Your task to perform on an android device: Add "dell xps" to the cart on bestbuy, then select checkout. Image 0: 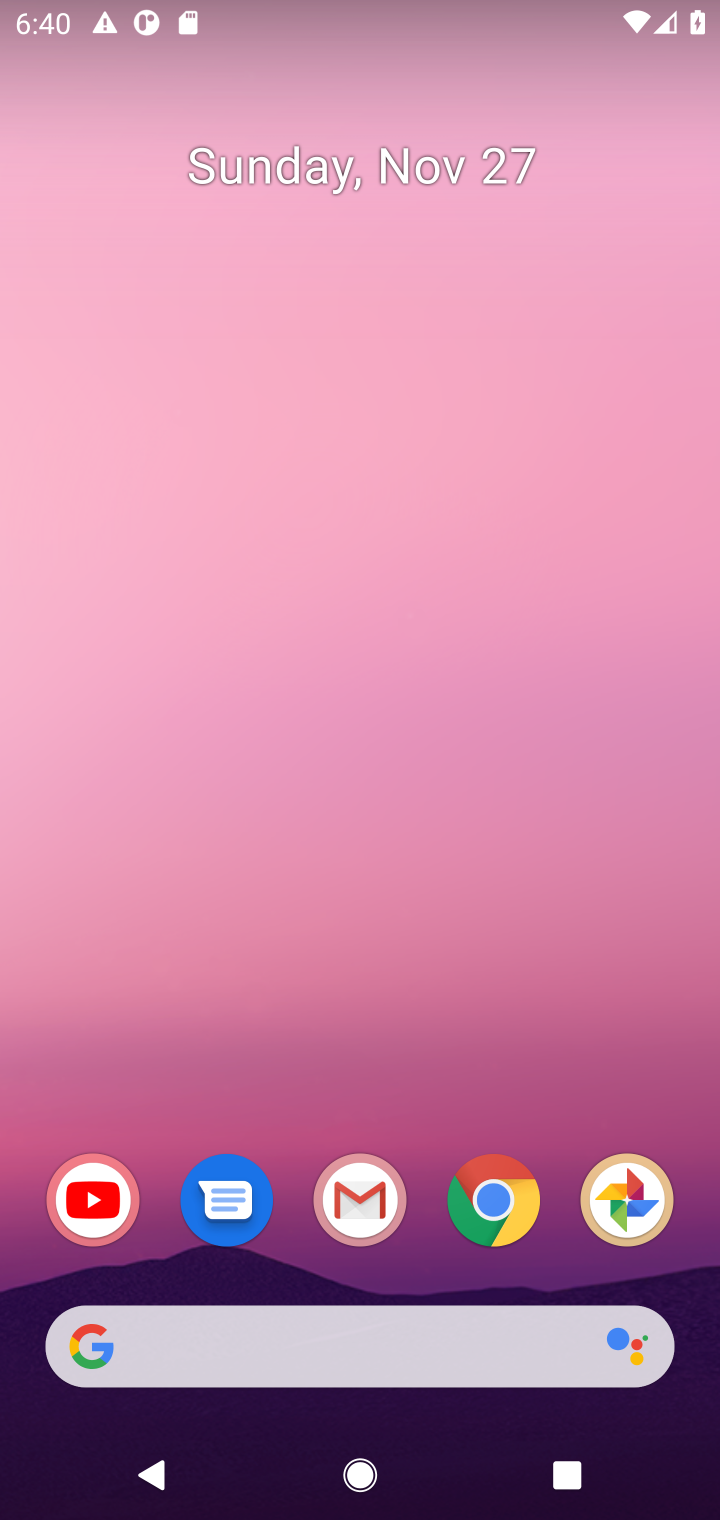
Step 0: click (509, 1206)
Your task to perform on an android device: Add "dell xps" to the cart on bestbuy, then select checkout. Image 1: 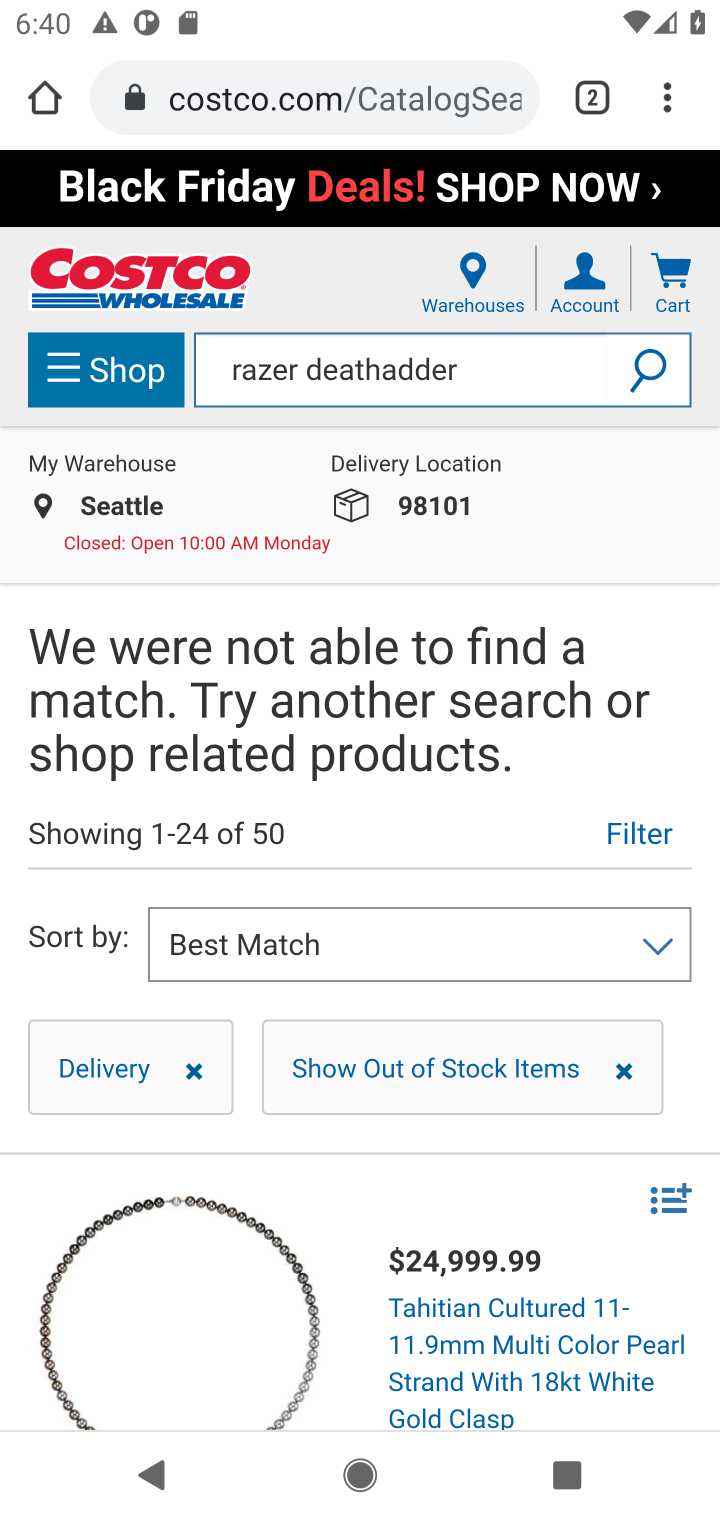
Step 1: click (286, 112)
Your task to perform on an android device: Add "dell xps" to the cart on bestbuy, then select checkout. Image 2: 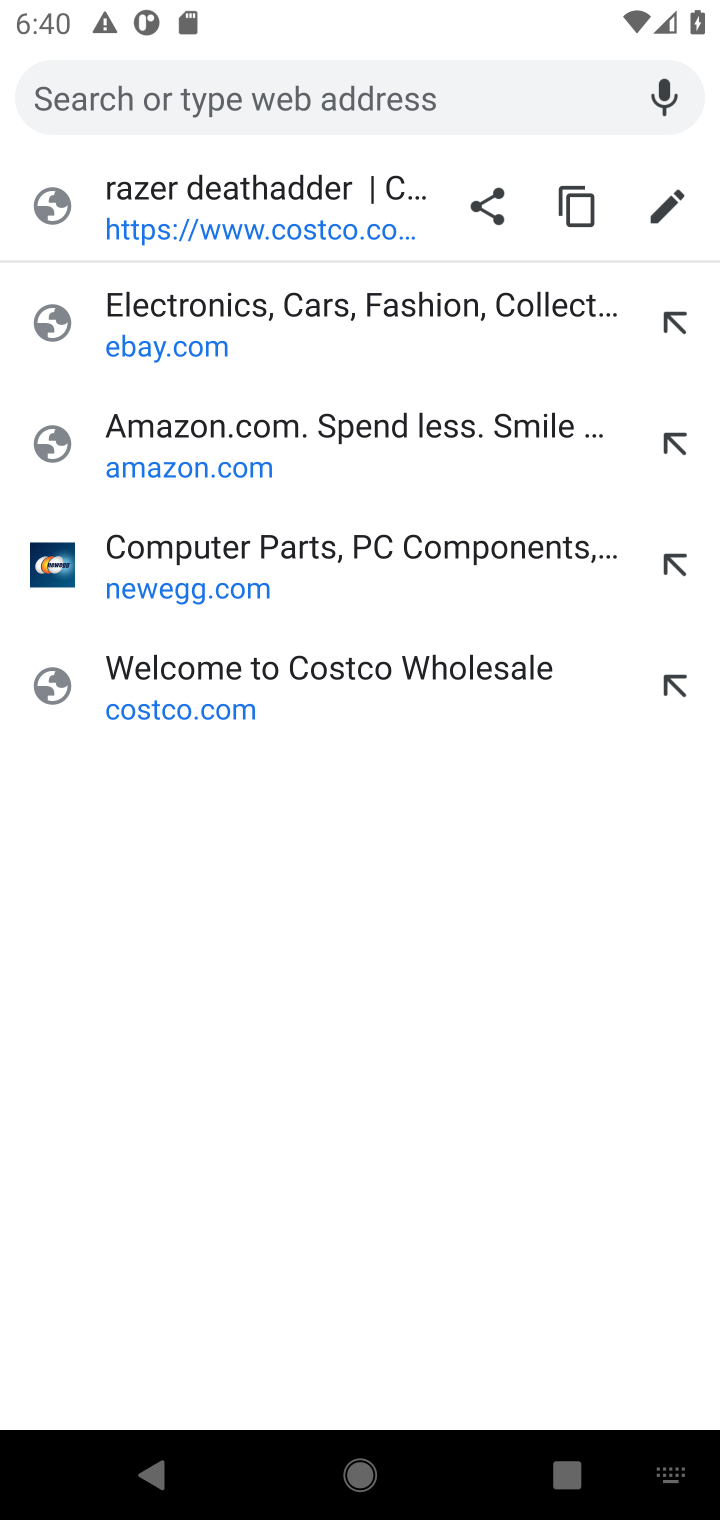
Step 2: type "bestbuy.com"
Your task to perform on an android device: Add "dell xps" to the cart on bestbuy, then select checkout. Image 3: 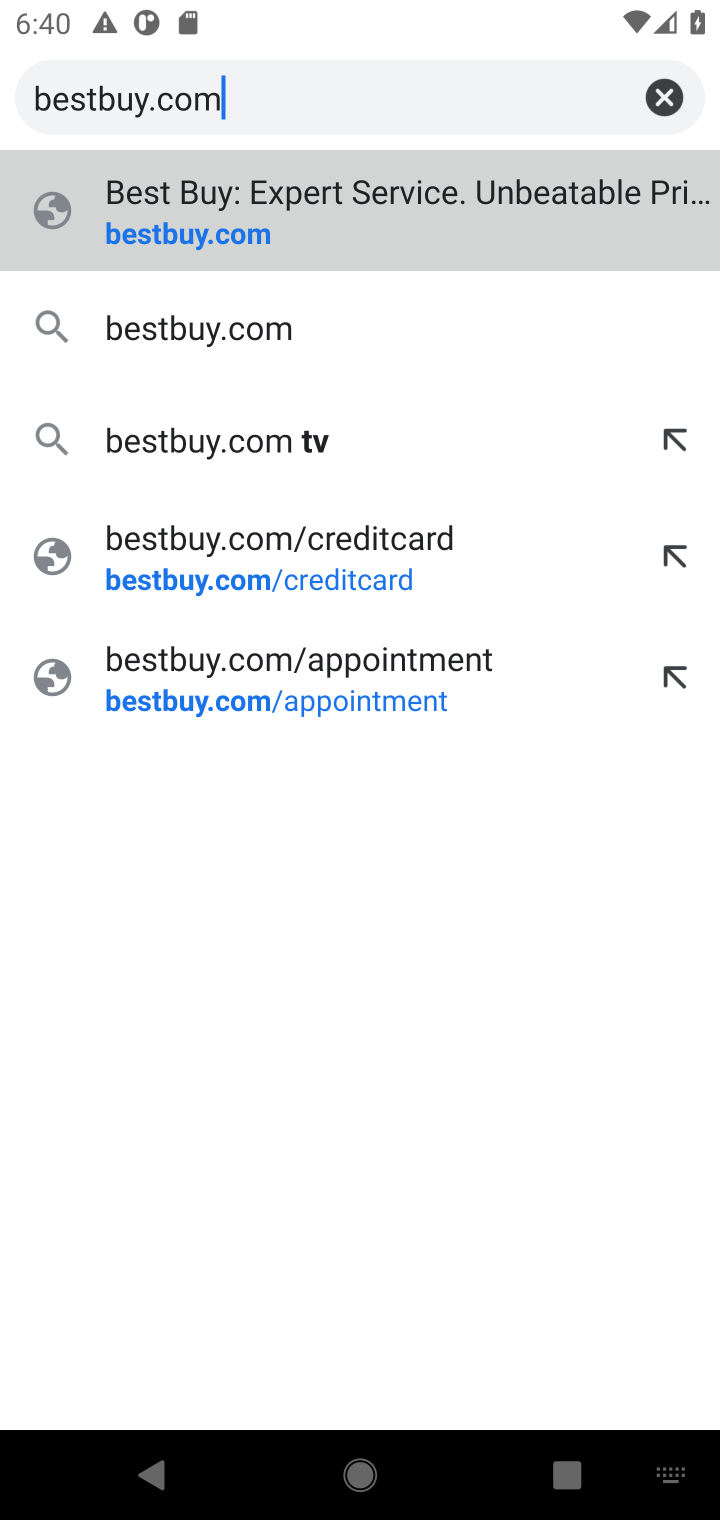
Step 3: click (119, 249)
Your task to perform on an android device: Add "dell xps" to the cart on bestbuy, then select checkout. Image 4: 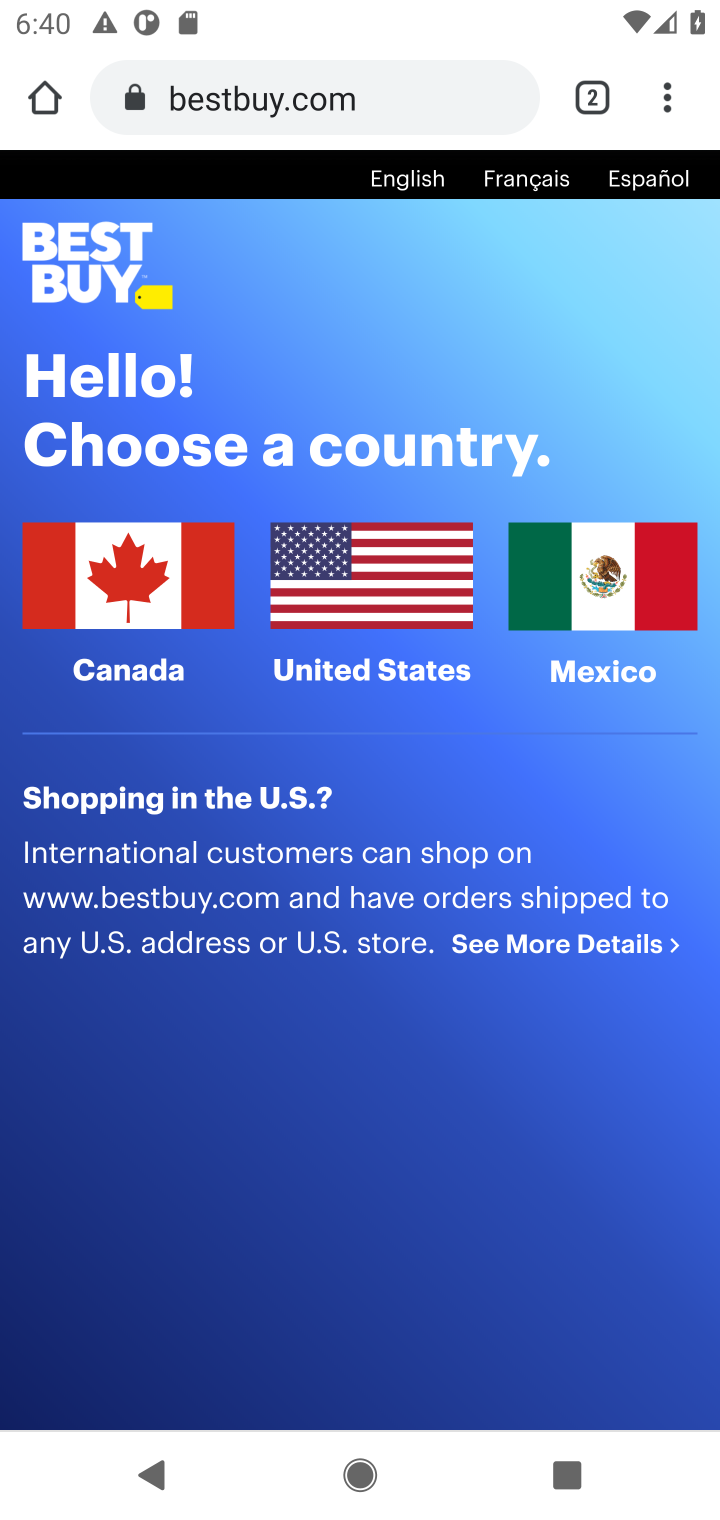
Step 4: click (357, 604)
Your task to perform on an android device: Add "dell xps" to the cart on bestbuy, then select checkout. Image 5: 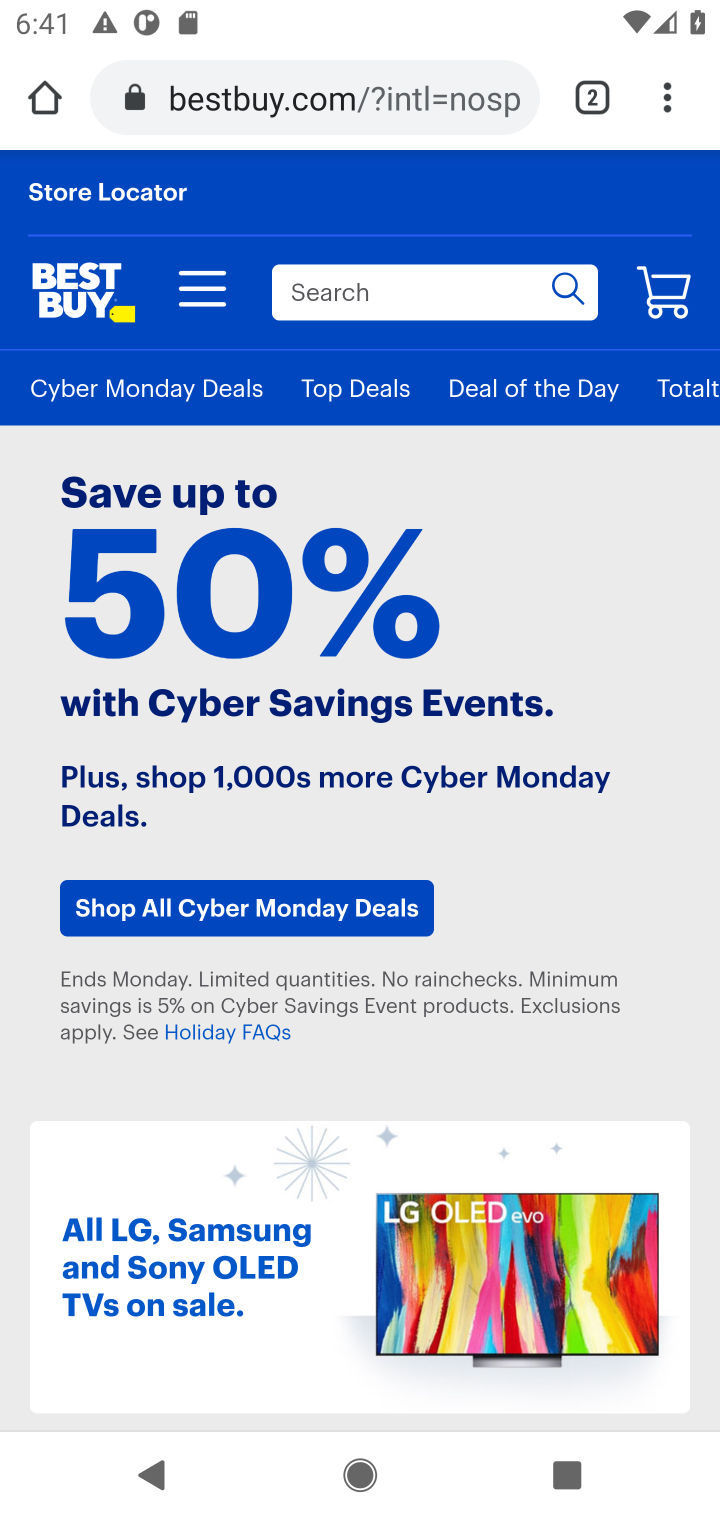
Step 5: click (375, 294)
Your task to perform on an android device: Add "dell xps" to the cart on bestbuy, then select checkout. Image 6: 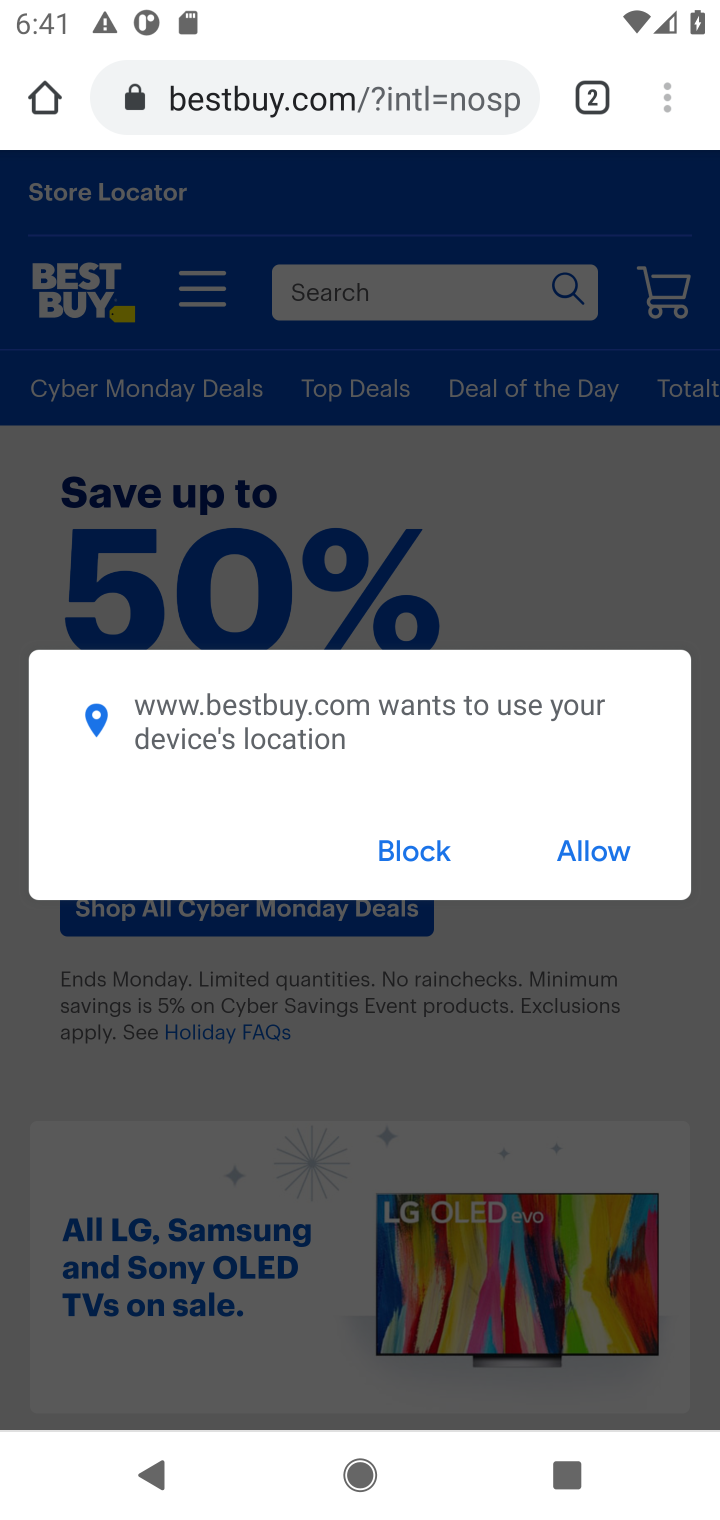
Step 6: click (401, 856)
Your task to perform on an android device: Add "dell xps" to the cart on bestbuy, then select checkout. Image 7: 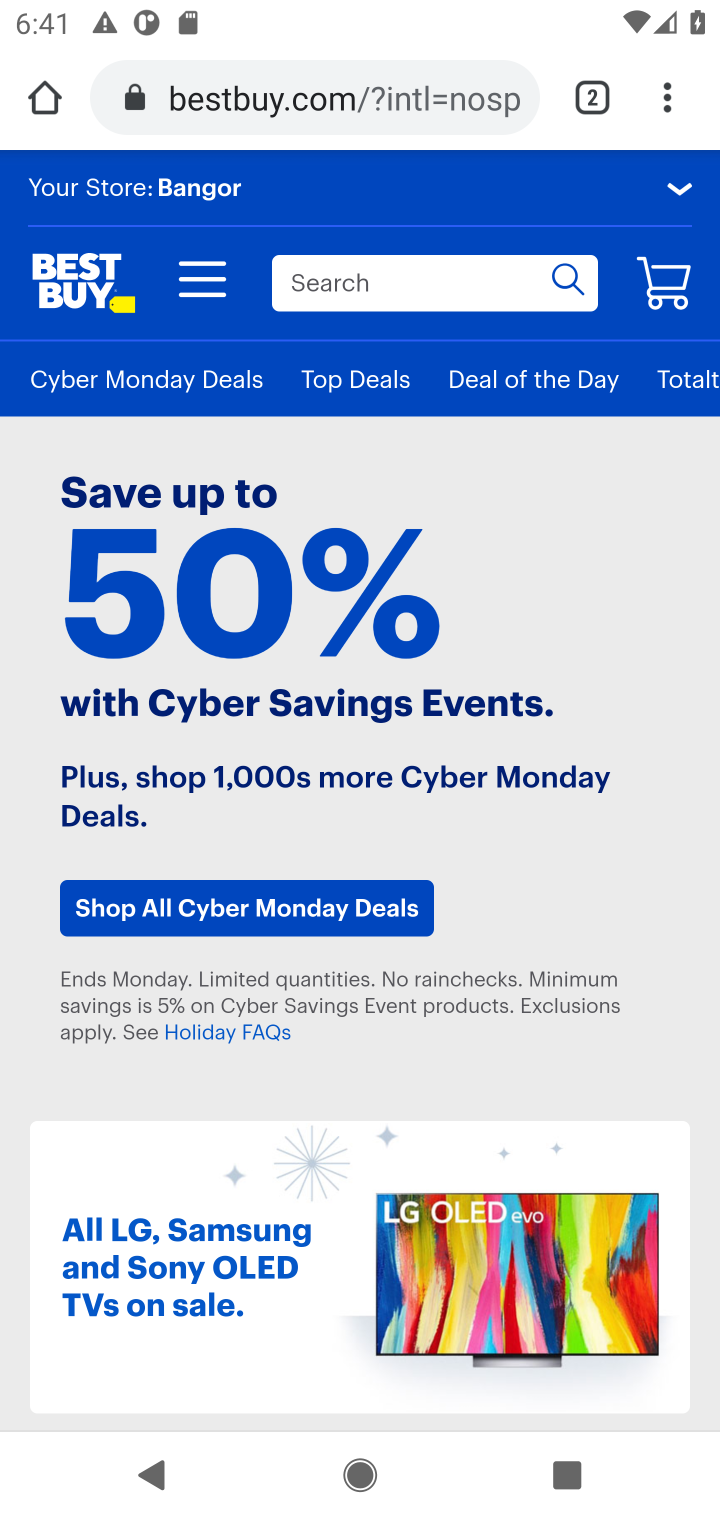
Step 7: click (328, 296)
Your task to perform on an android device: Add "dell xps" to the cart on bestbuy, then select checkout. Image 8: 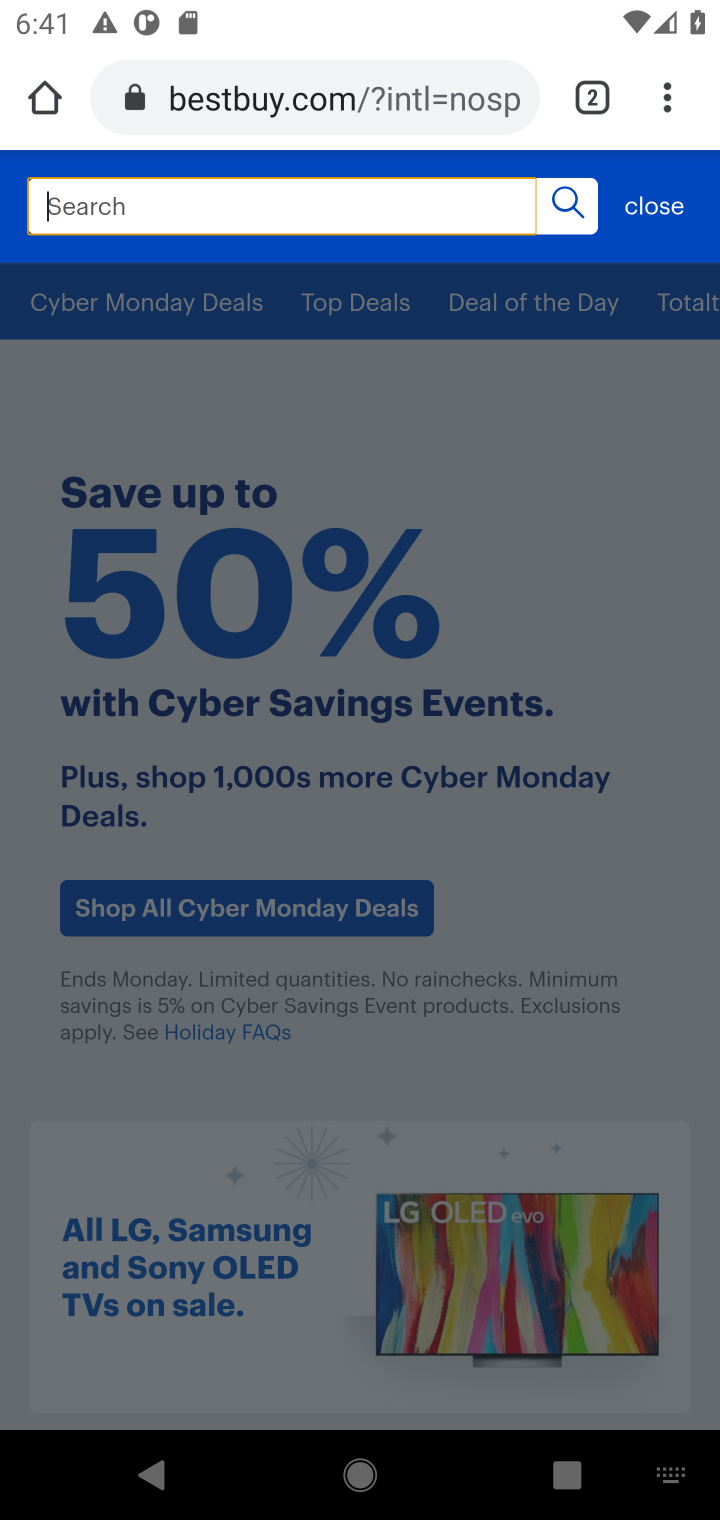
Step 8: type "dell xps"
Your task to perform on an android device: Add "dell xps" to the cart on bestbuy, then select checkout. Image 9: 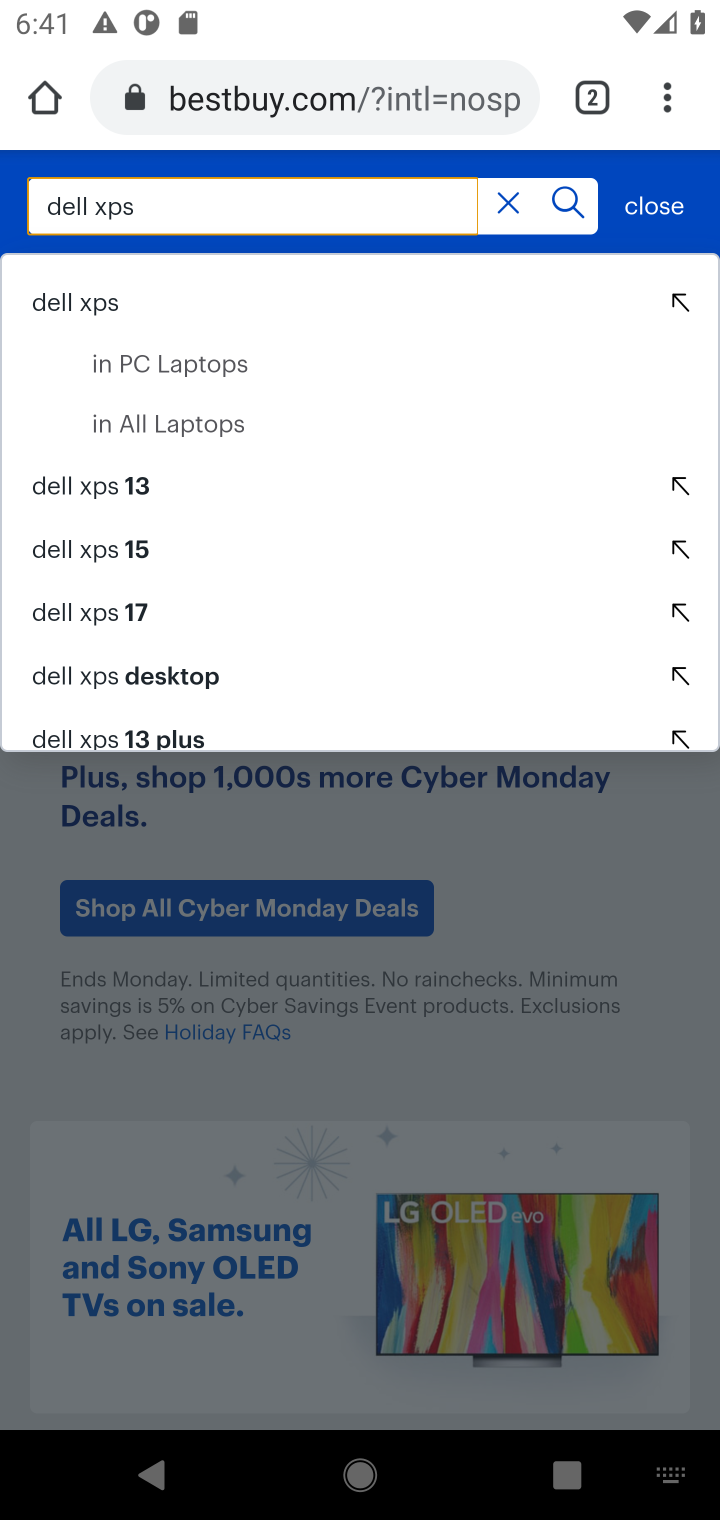
Step 9: click (59, 302)
Your task to perform on an android device: Add "dell xps" to the cart on bestbuy, then select checkout. Image 10: 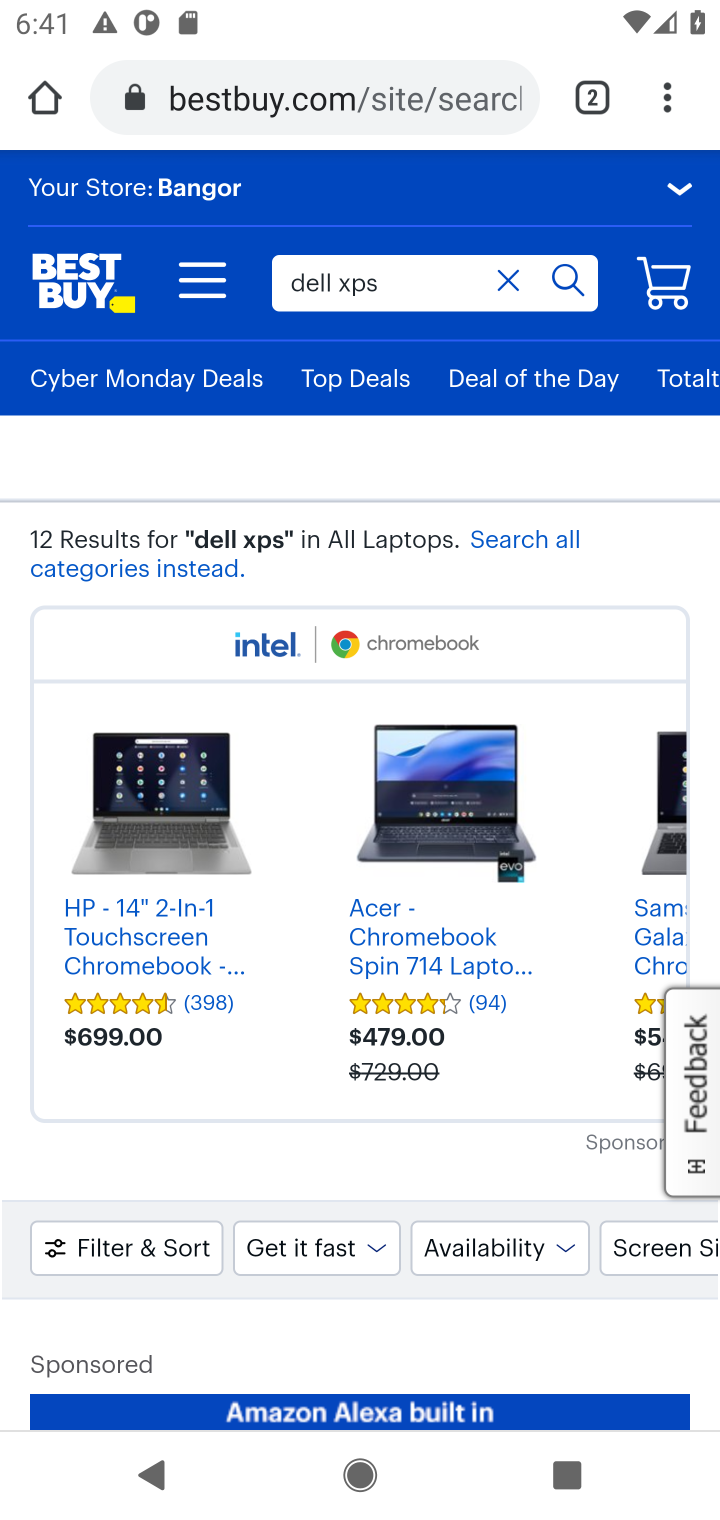
Step 10: drag from (305, 1077) to (257, 757)
Your task to perform on an android device: Add "dell xps" to the cart on bestbuy, then select checkout. Image 11: 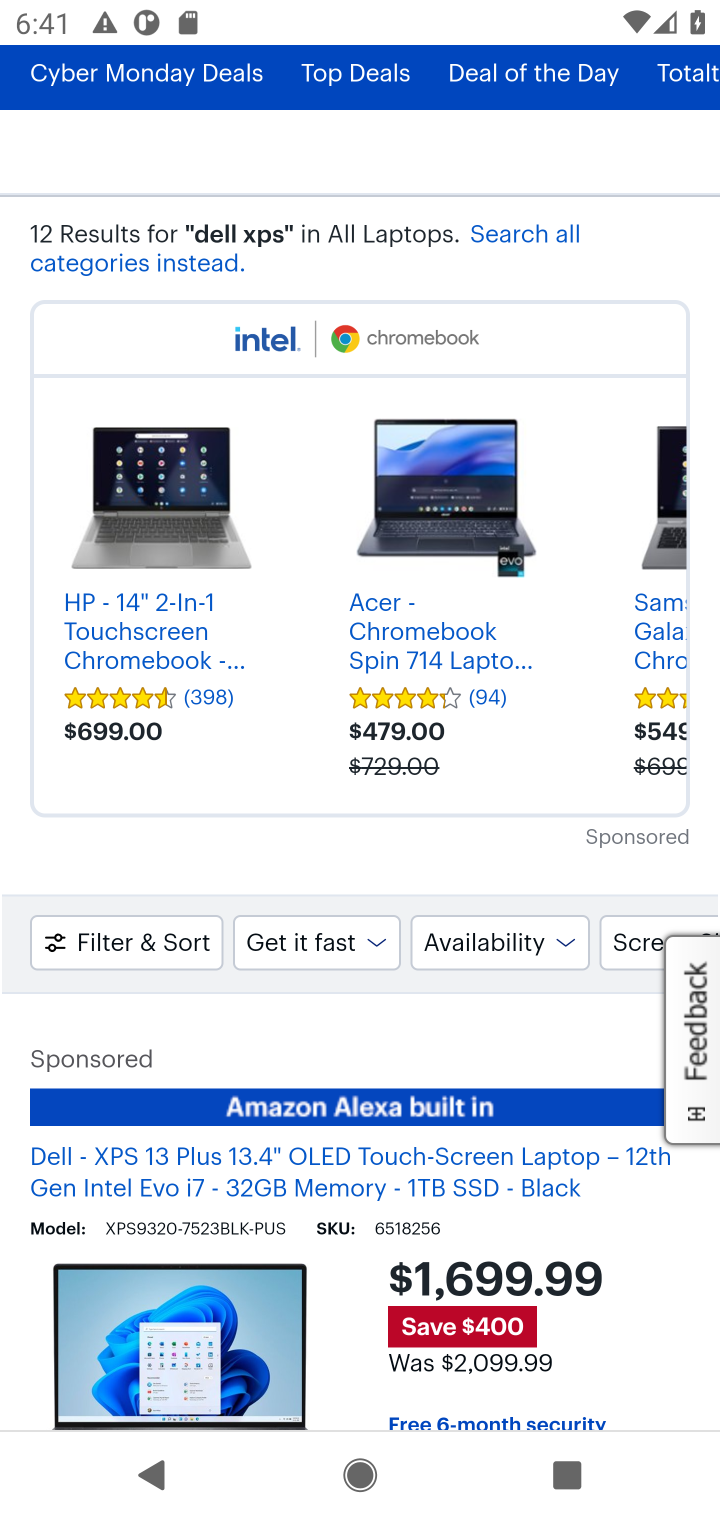
Step 11: drag from (186, 1158) to (176, 658)
Your task to perform on an android device: Add "dell xps" to the cart on bestbuy, then select checkout. Image 12: 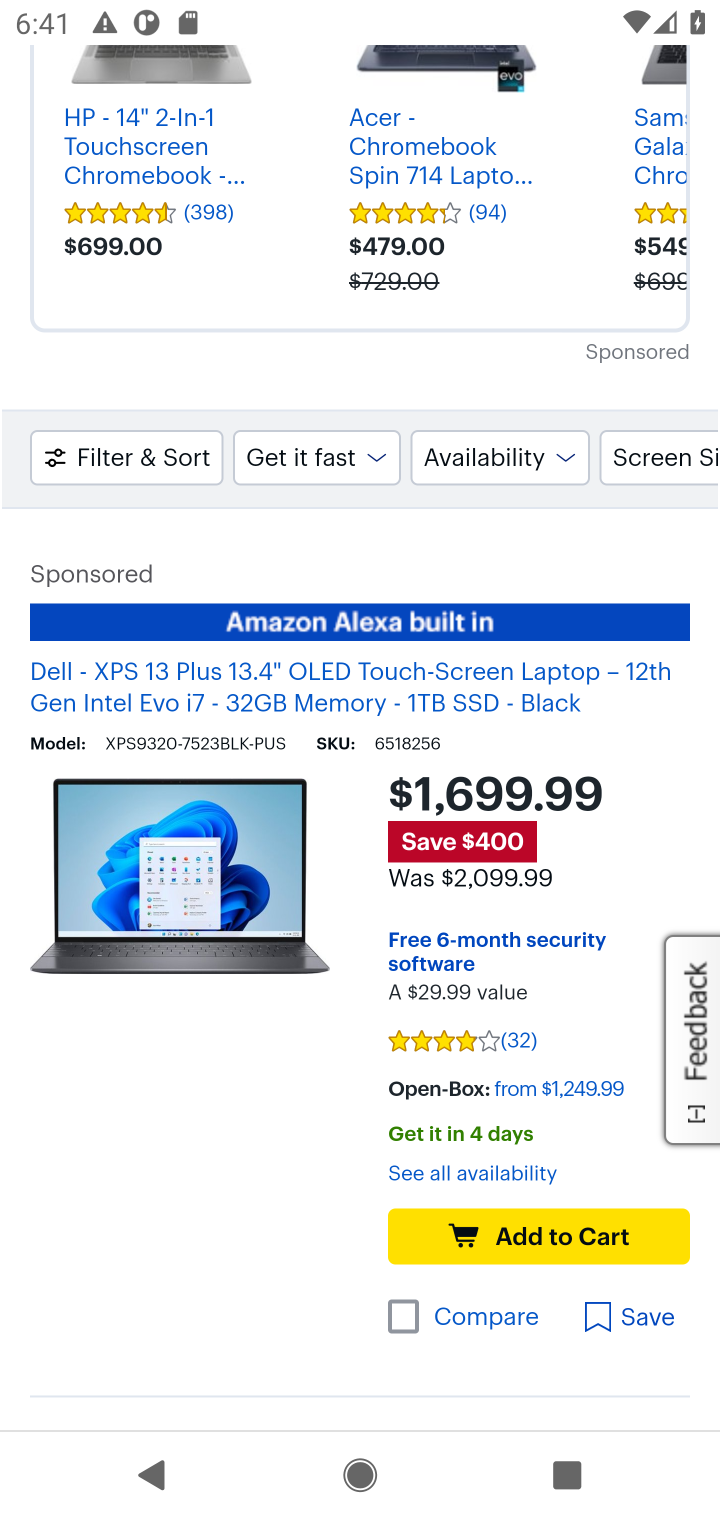
Step 12: click (492, 1218)
Your task to perform on an android device: Add "dell xps" to the cart on bestbuy, then select checkout. Image 13: 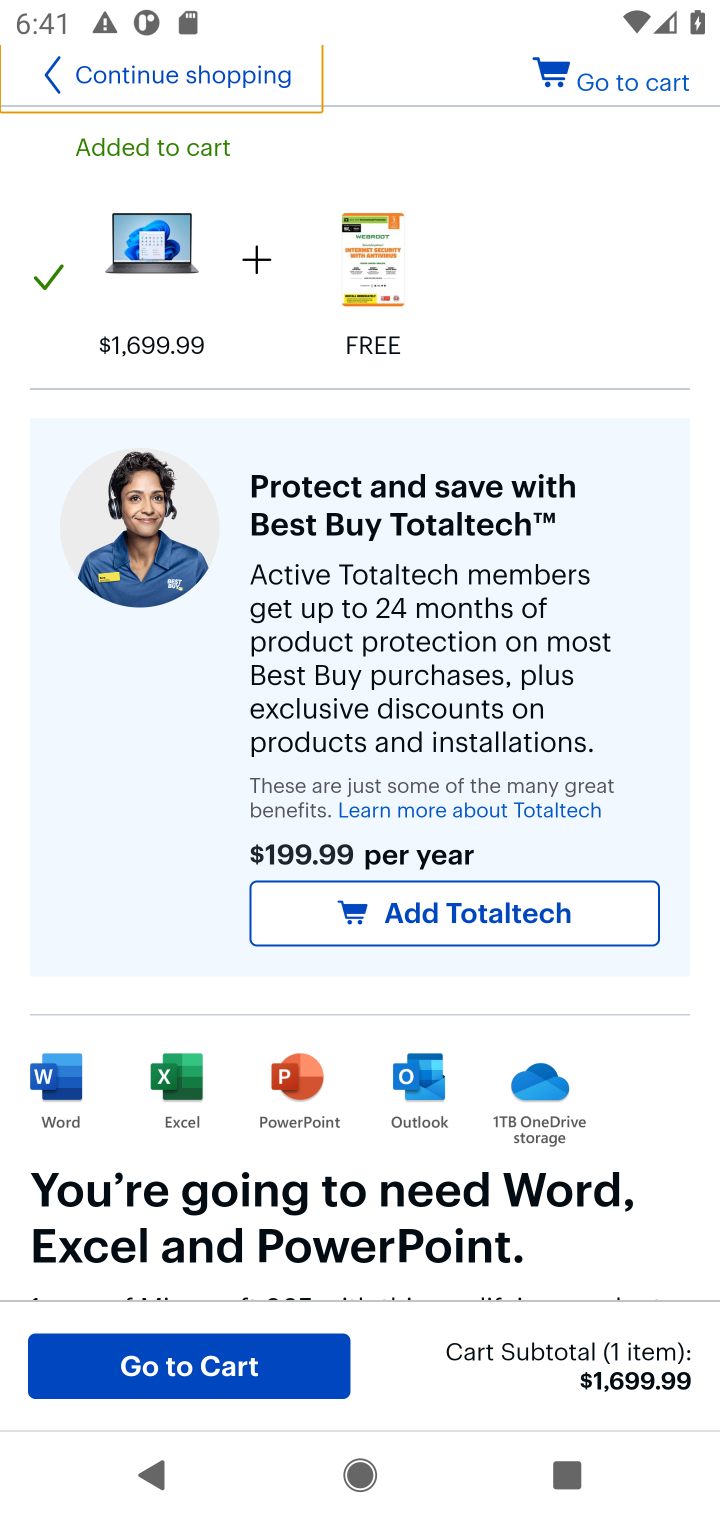
Step 13: click (588, 82)
Your task to perform on an android device: Add "dell xps" to the cart on bestbuy, then select checkout. Image 14: 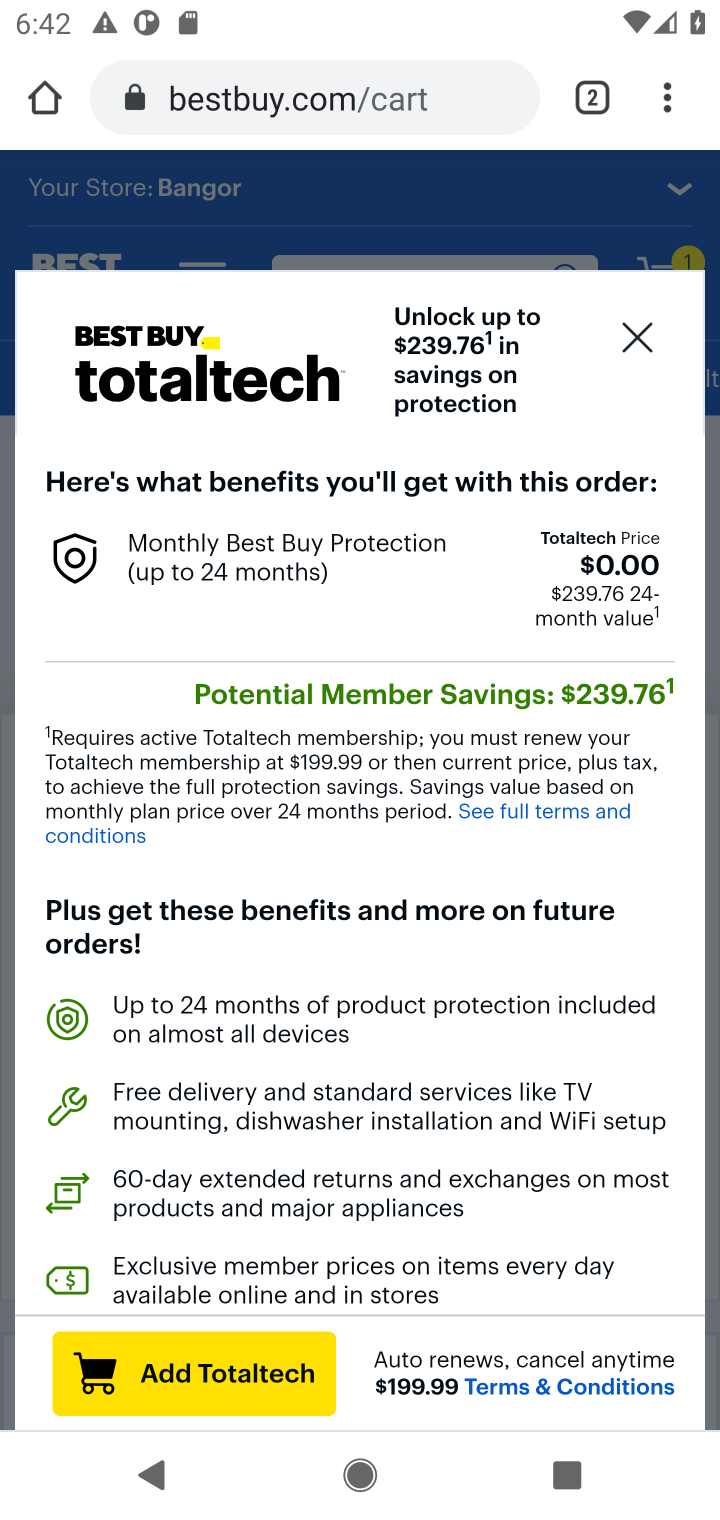
Step 14: click (642, 333)
Your task to perform on an android device: Add "dell xps" to the cart on bestbuy, then select checkout. Image 15: 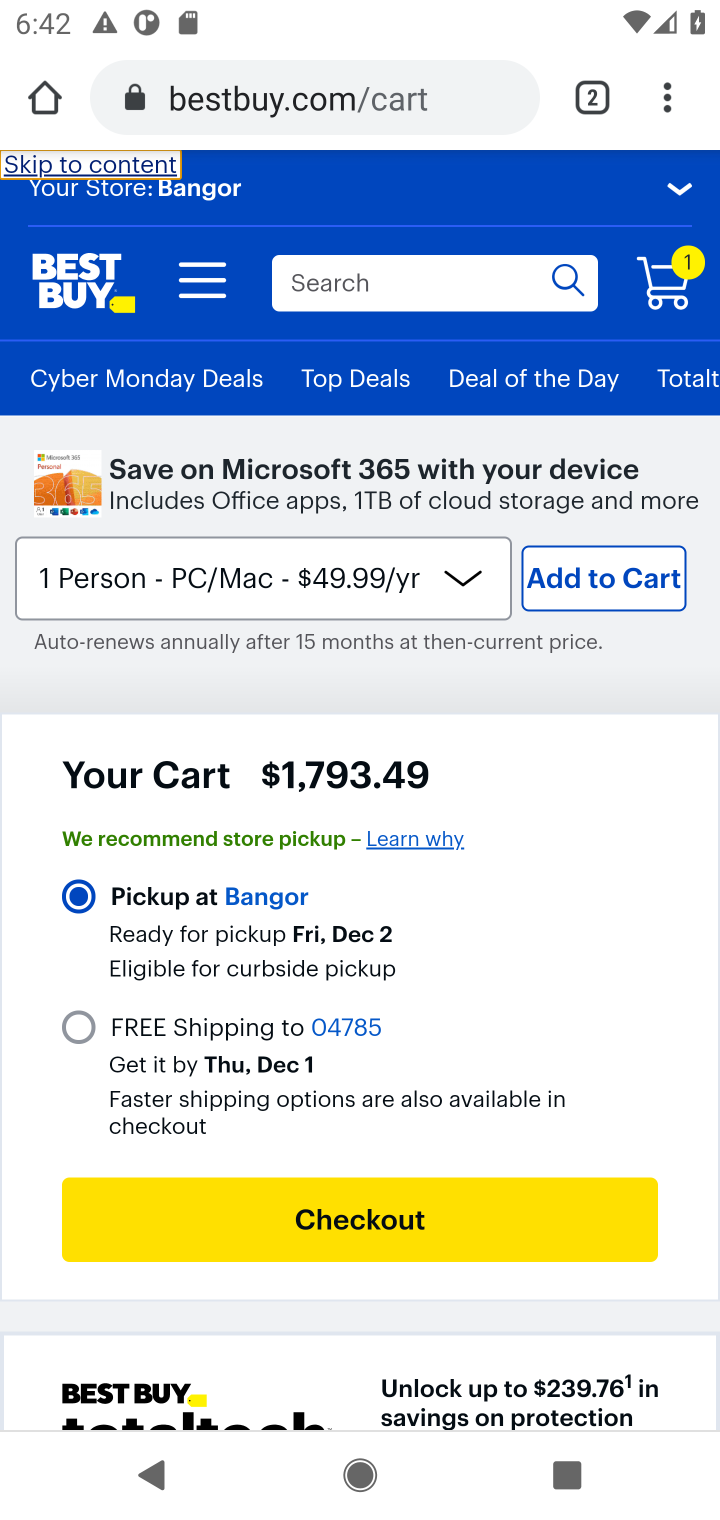
Step 15: click (376, 1211)
Your task to perform on an android device: Add "dell xps" to the cart on bestbuy, then select checkout. Image 16: 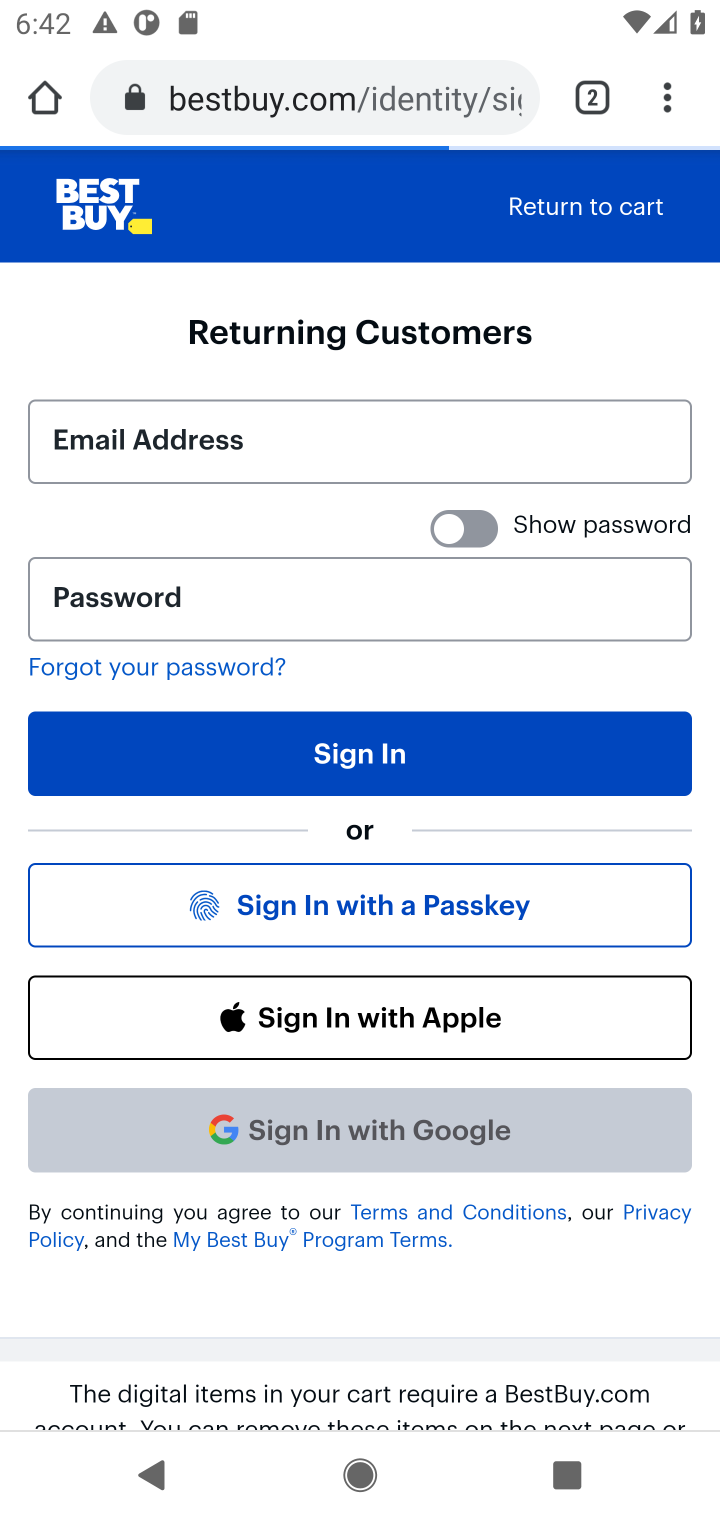
Step 16: task complete